Your task to perform on an android device: turn pop-ups off in chrome Image 0: 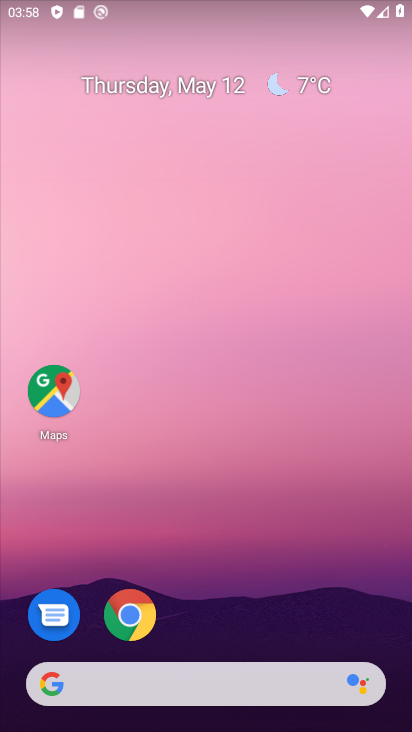
Step 0: click (131, 600)
Your task to perform on an android device: turn pop-ups off in chrome Image 1: 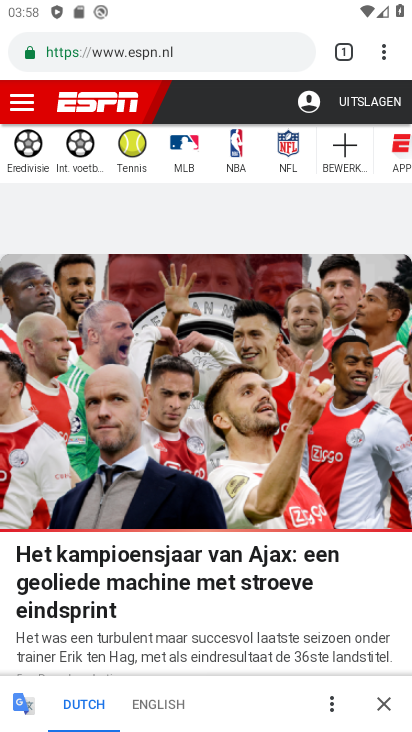
Step 1: click (381, 52)
Your task to perform on an android device: turn pop-ups off in chrome Image 2: 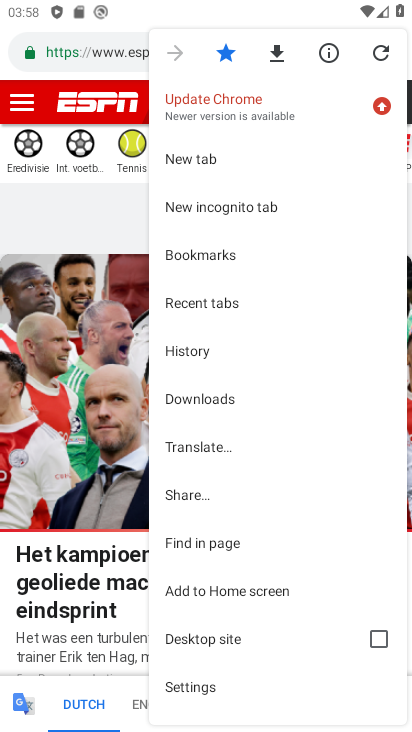
Step 2: click (199, 684)
Your task to perform on an android device: turn pop-ups off in chrome Image 3: 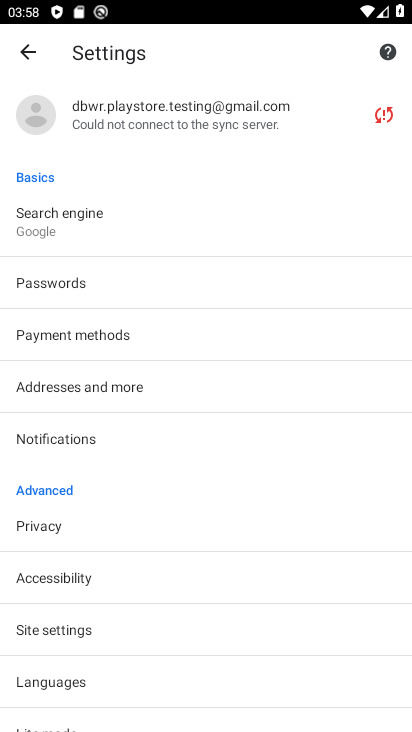
Step 3: click (74, 639)
Your task to perform on an android device: turn pop-ups off in chrome Image 4: 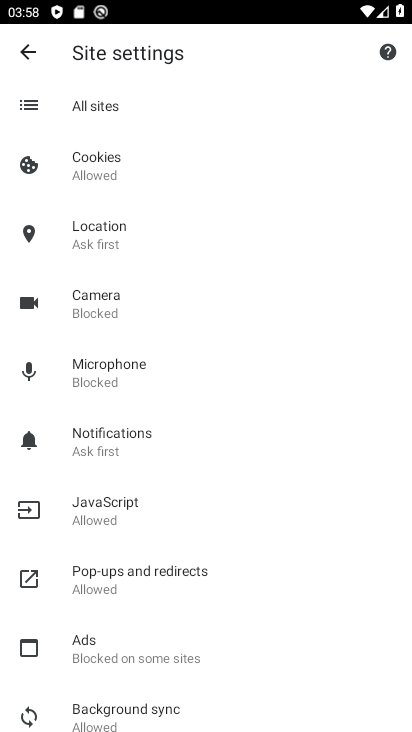
Step 4: click (123, 572)
Your task to perform on an android device: turn pop-ups off in chrome Image 5: 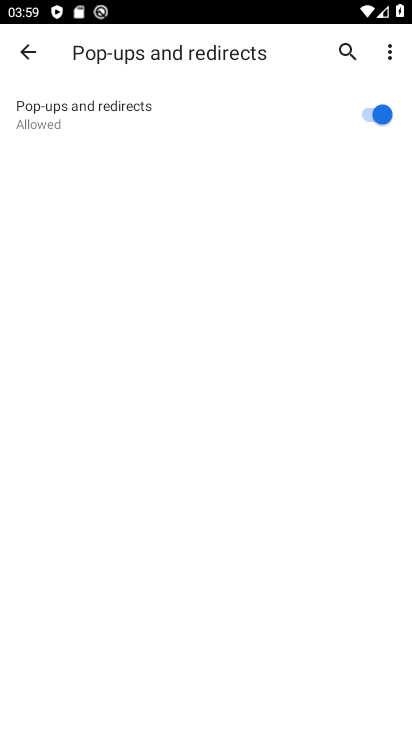
Step 5: click (384, 114)
Your task to perform on an android device: turn pop-ups off in chrome Image 6: 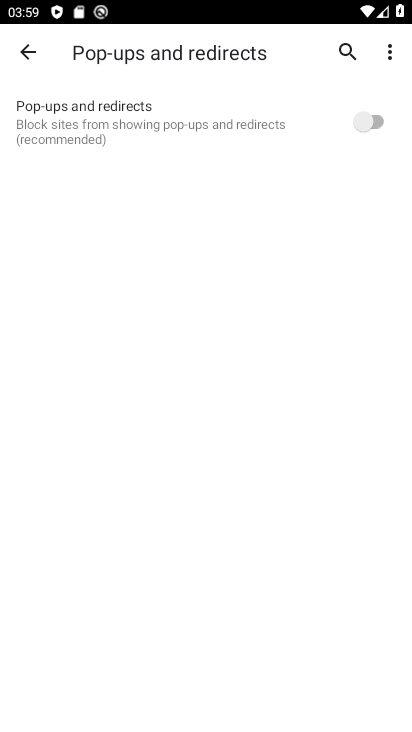
Step 6: task complete